Your task to perform on an android device: Set the phone to "Do not disturb". Image 0: 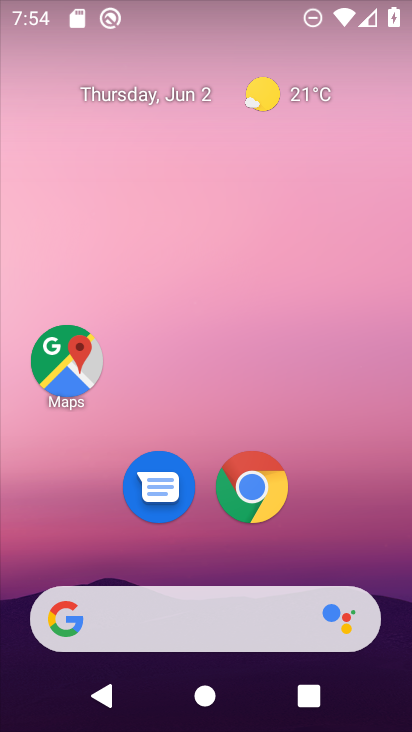
Step 0: drag from (197, 286) to (411, 200)
Your task to perform on an android device: Set the phone to "Do not disturb". Image 1: 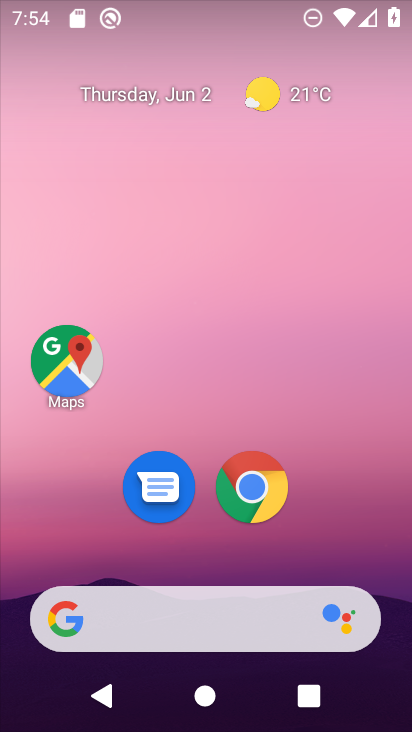
Step 1: task complete